Your task to perform on an android device: open the mobile data screen to see how much data has been used Image 0: 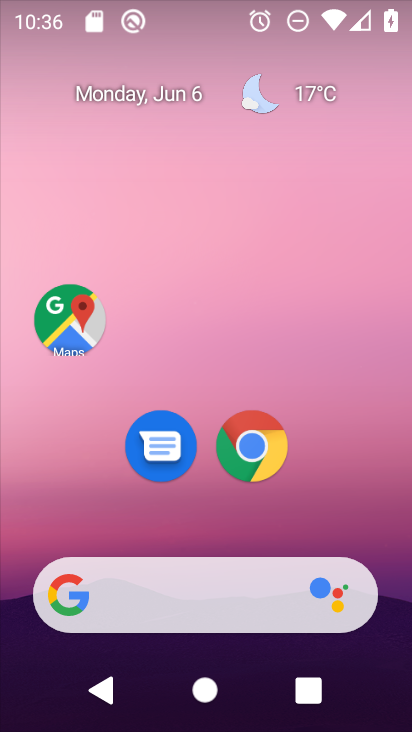
Step 0: drag from (214, 10) to (236, 373)
Your task to perform on an android device: open the mobile data screen to see how much data has been used Image 1: 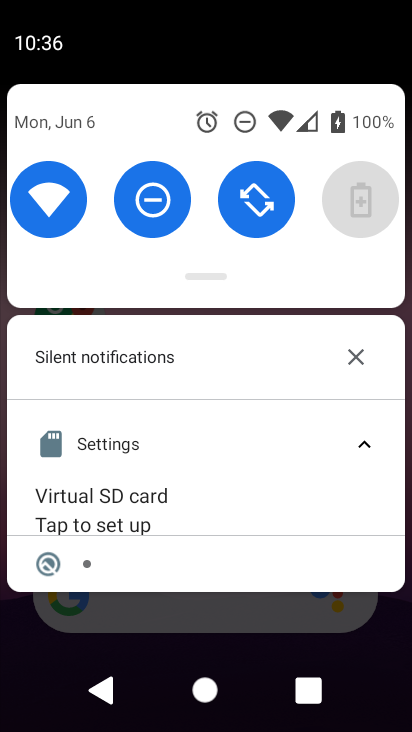
Step 1: drag from (178, 138) to (178, 483)
Your task to perform on an android device: open the mobile data screen to see how much data has been used Image 2: 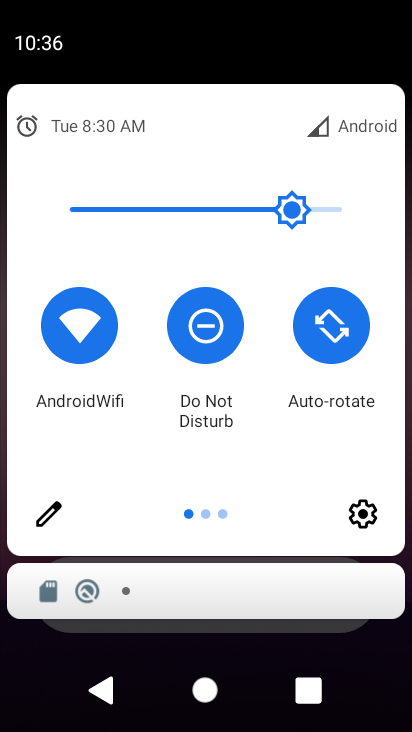
Step 2: drag from (374, 440) to (39, 440)
Your task to perform on an android device: open the mobile data screen to see how much data has been used Image 3: 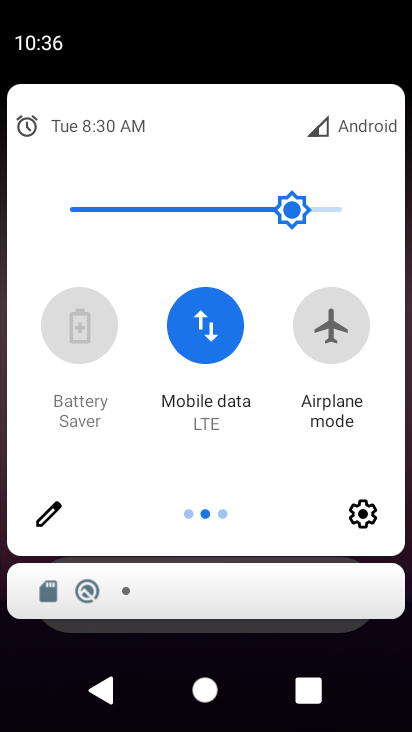
Step 3: click (214, 328)
Your task to perform on an android device: open the mobile data screen to see how much data has been used Image 4: 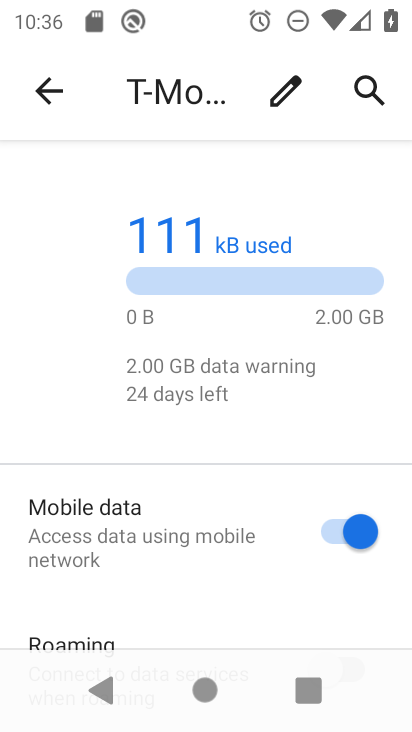
Step 4: task complete